Your task to perform on an android device: change timer sound Image 0: 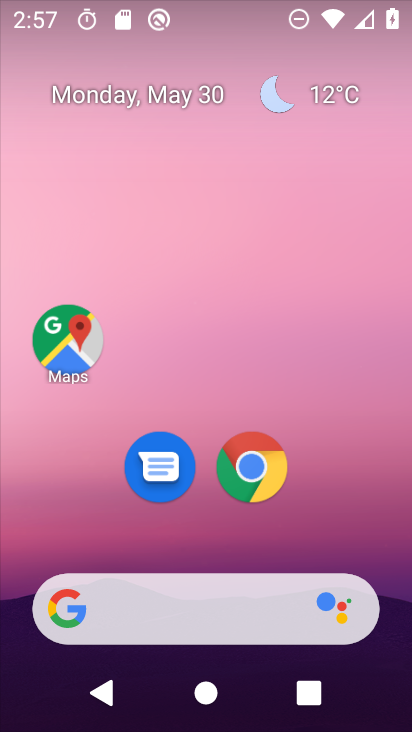
Step 0: drag from (366, 538) to (337, 301)
Your task to perform on an android device: change timer sound Image 1: 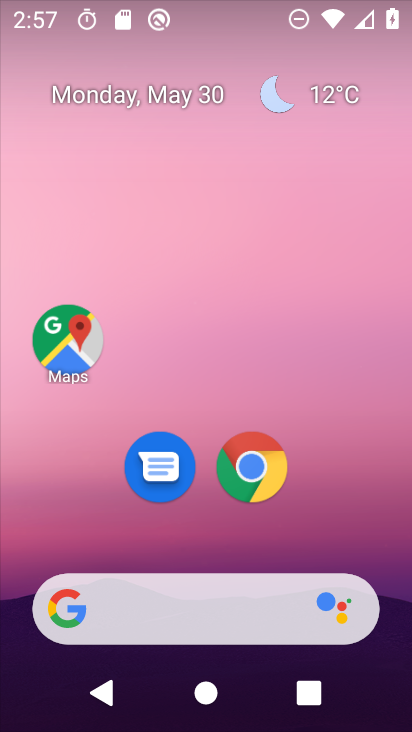
Step 1: drag from (388, 693) to (333, 230)
Your task to perform on an android device: change timer sound Image 2: 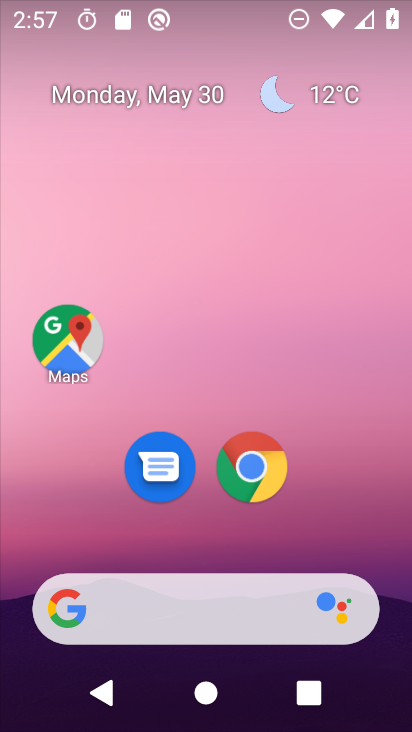
Step 2: drag from (379, 704) to (338, 299)
Your task to perform on an android device: change timer sound Image 3: 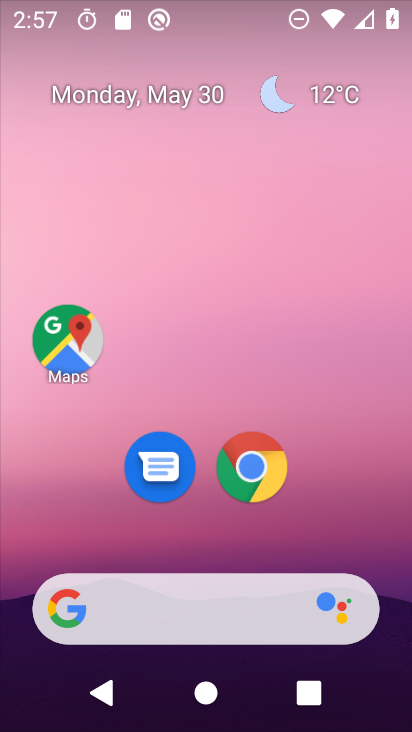
Step 3: drag from (381, 710) to (354, 257)
Your task to perform on an android device: change timer sound Image 4: 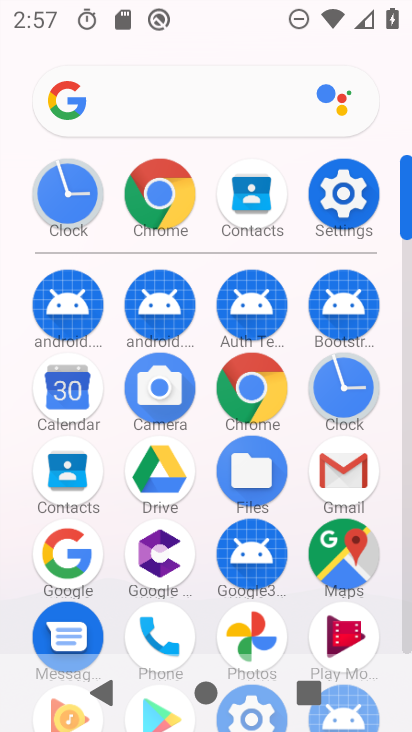
Step 4: click (341, 205)
Your task to perform on an android device: change timer sound Image 5: 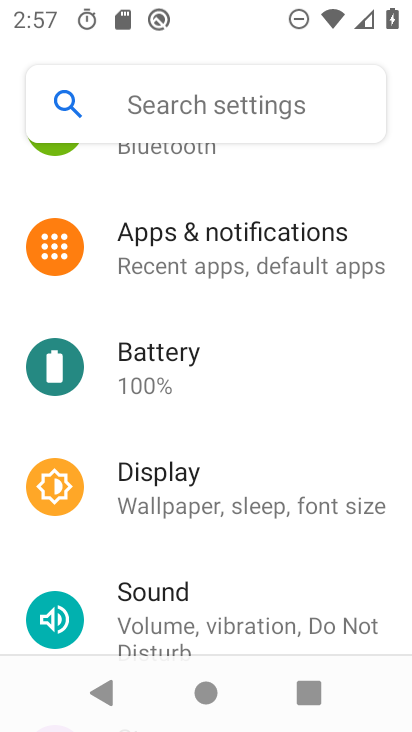
Step 5: click (179, 612)
Your task to perform on an android device: change timer sound Image 6: 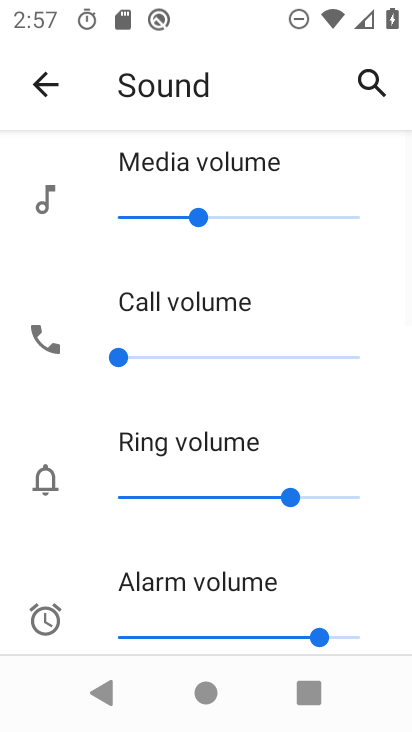
Step 6: drag from (333, 612) to (322, 364)
Your task to perform on an android device: change timer sound Image 7: 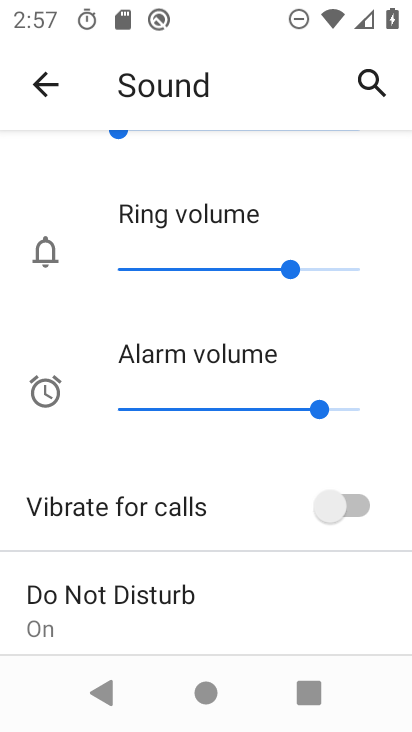
Step 7: click (45, 77)
Your task to perform on an android device: change timer sound Image 8: 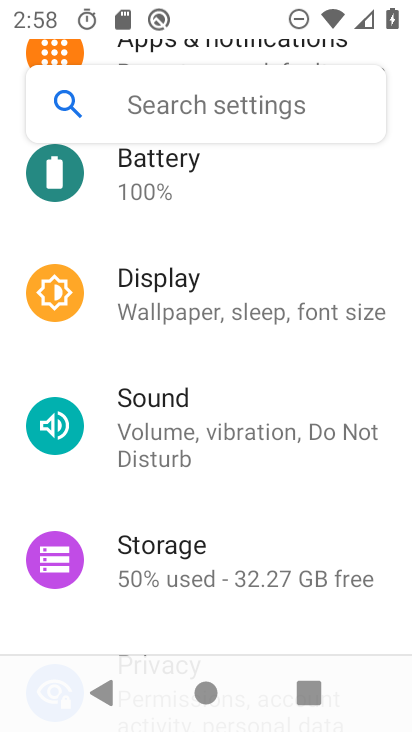
Step 8: press home button
Your task to perform on an android device: change timer sound Image 9: 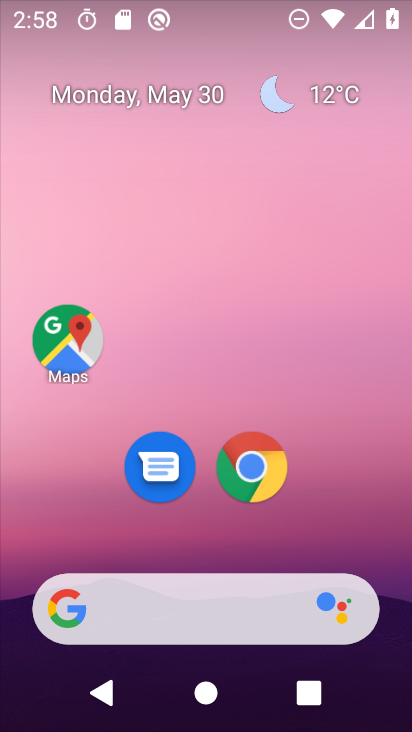
Step 9: drag from (388, 675) to (327, 297)
Your task to perform on an android device: change timer sound Image 10: 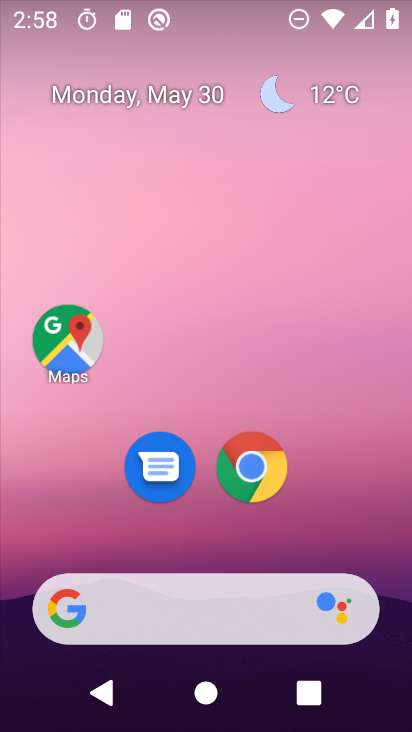
Step 10: drag from (374, 584) to (324, 186)
Your task to perform on an android device: change timer sound Image 11: 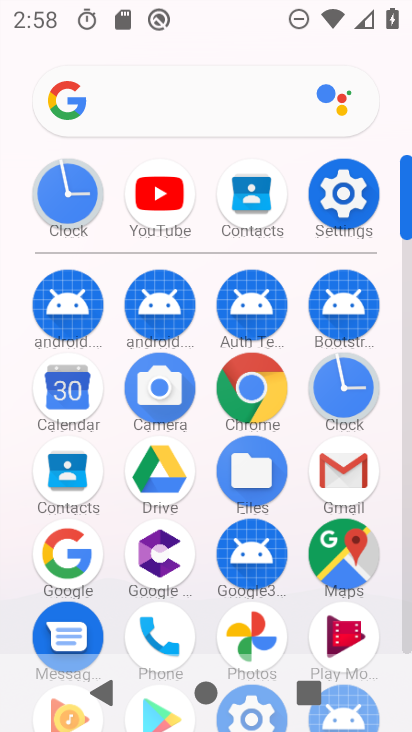
Step 11: click (324, 386)
Your task to perform on an android device: change timer sound Image 12: 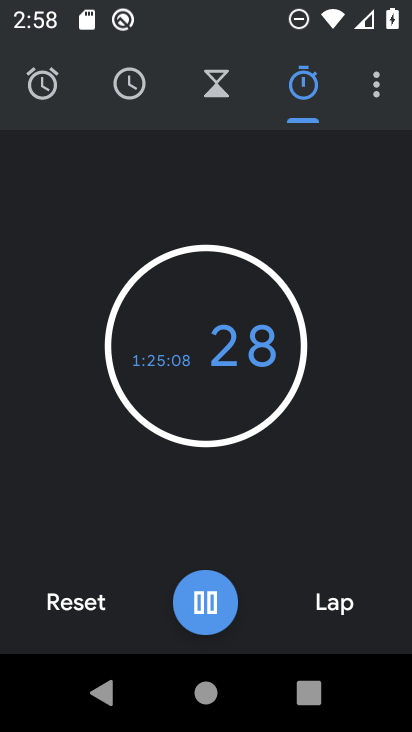
Step 12: click (372, 87)
Your task to perform on an android device: change timer sound Image 13: 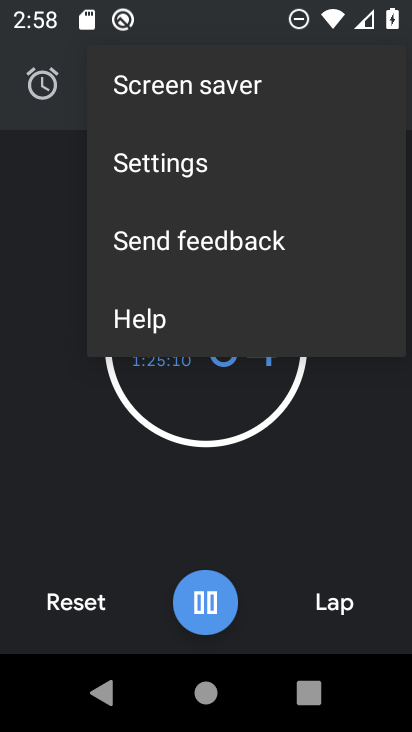
Step 13: click (170, 179)
Your task to perform on an android device: change timer sound Image 14: 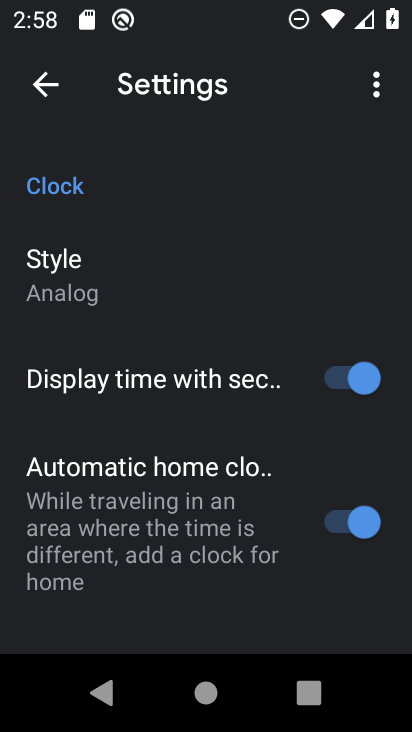
Step 14: drag from (267, 593) to (231, 244)
Your task to perform on an android device: change timer sound Image 15: 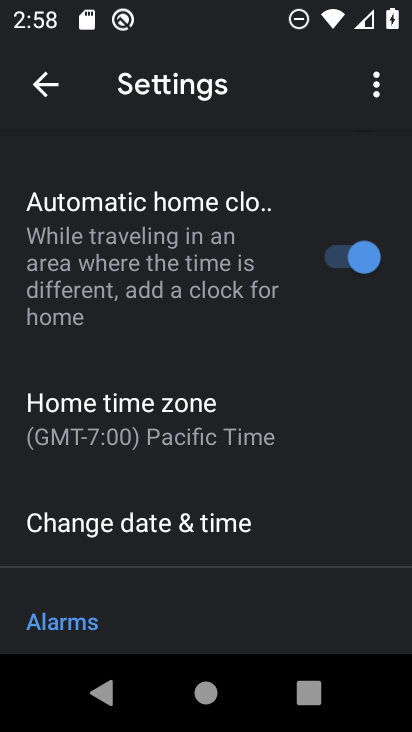
Step 15: drag from (279, 614) to (258, 273)
Your task to perform on an android device: change timer sound Image 16: 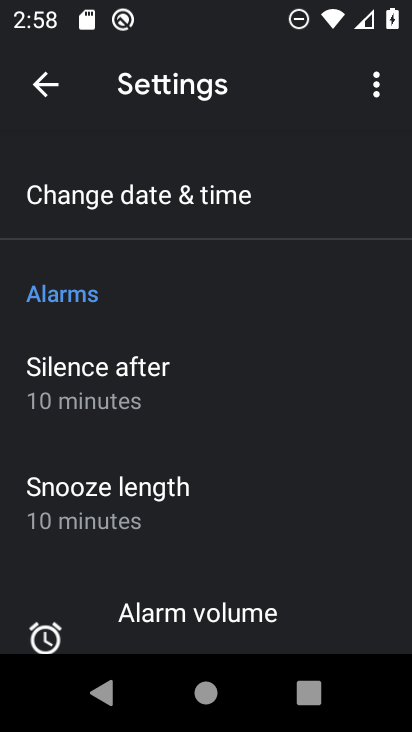
Step 16: drag from (248, 568) to (252, 301)
Your task to perform on an android device: change timer sound Image 17: 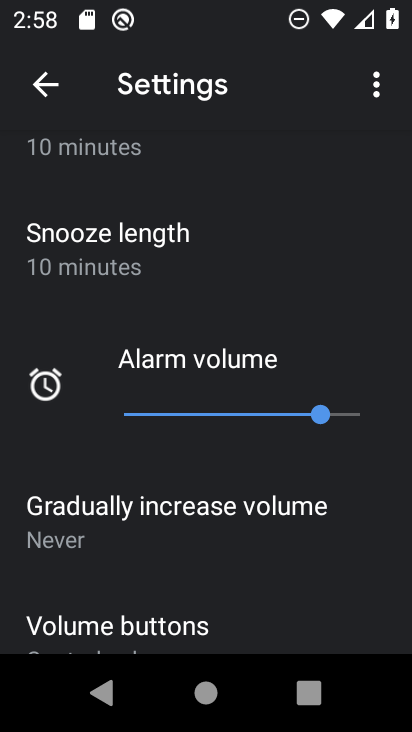
Step 17: drag from (150, 587) to (154, 232)
Your task to perform on an android device: change timer sound Image 18: 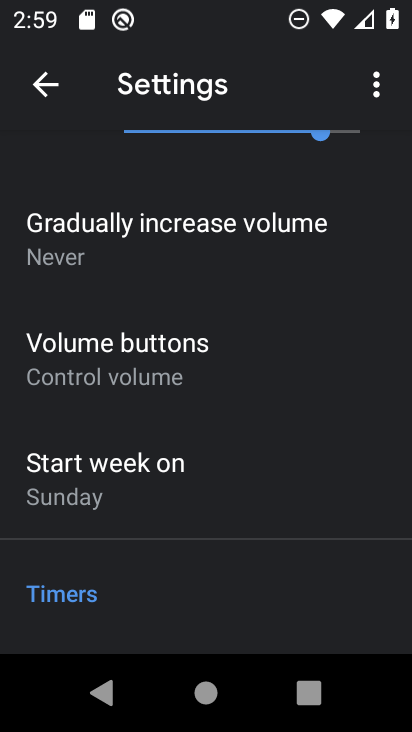
Step 18: drag from (227, 581) to (203, 343)
Your task to perform on an android device: change timer sound Image 19: 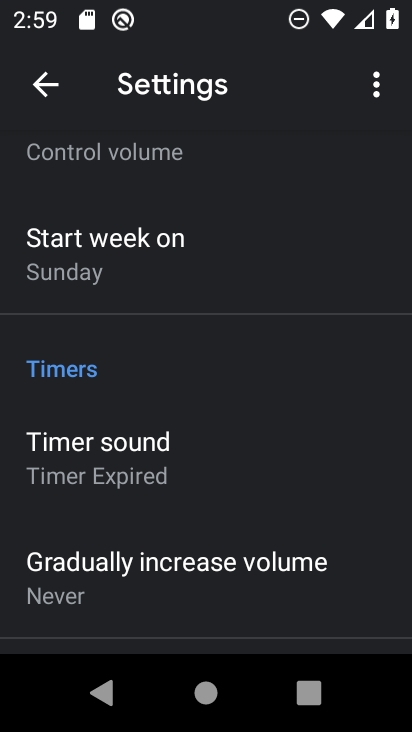
Step 19: click (116, 469)
Your task to perform on an android device: change timer sound Image 20: 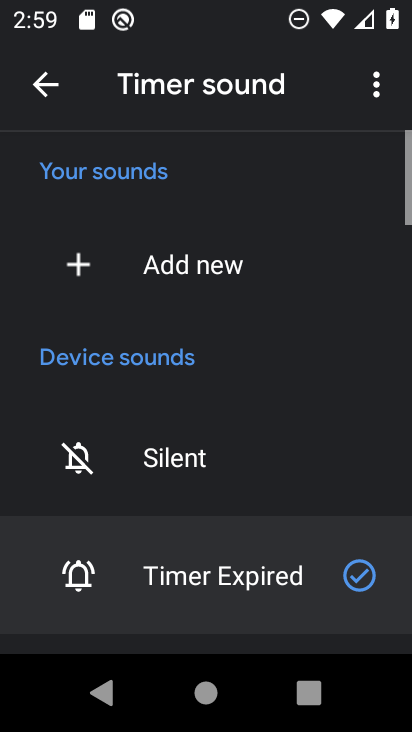
Step 20: drag from (251, 489) to (249, 246)
Your task to perform on an android device: change timer sound Image 21: 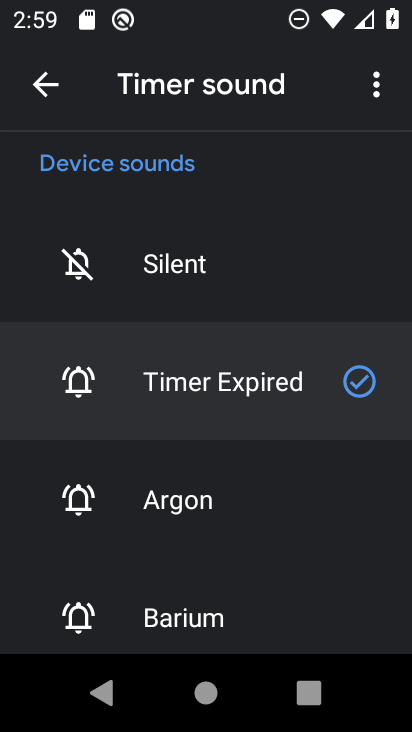
Step 21: click (155, 508)
Your task to perform on an android device: change timer sound Image 22: 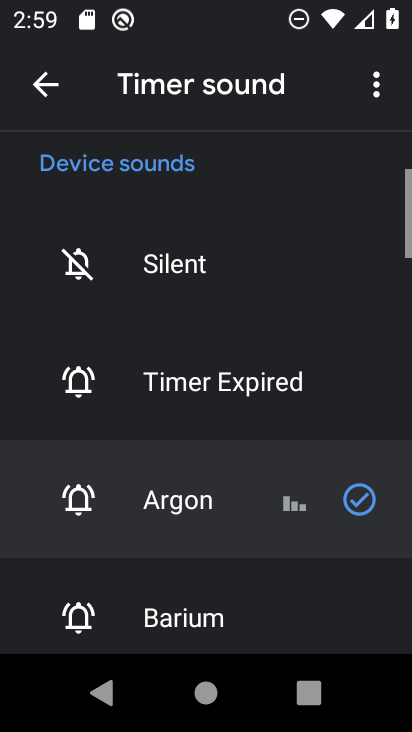
Step 22: task complete